Your task to perform on an android device: change keyboard looks Image 0: 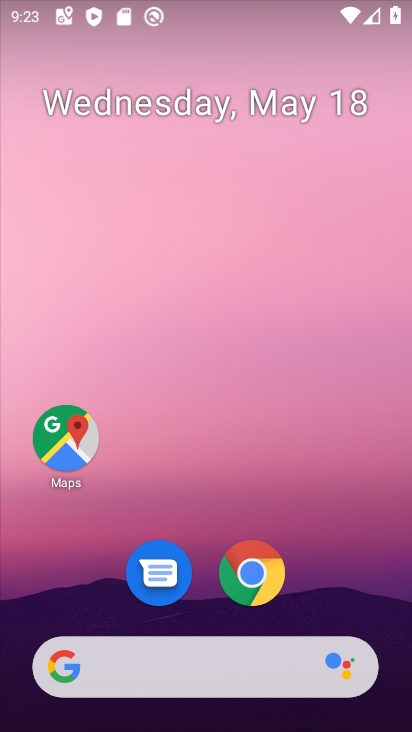
Step 0: drag from (236, 722) to (6, 81)
Your task to perform on an android device: change keyboard looks Image 1: 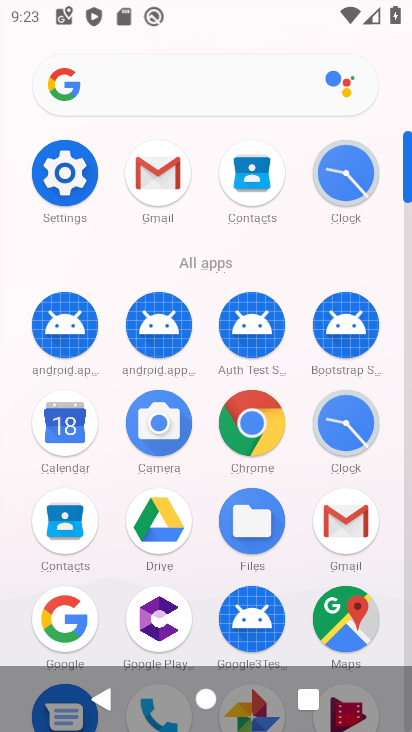
Step 1: click (63, 180)
Your task to perform on an android device: change keyboard looks Image 2: 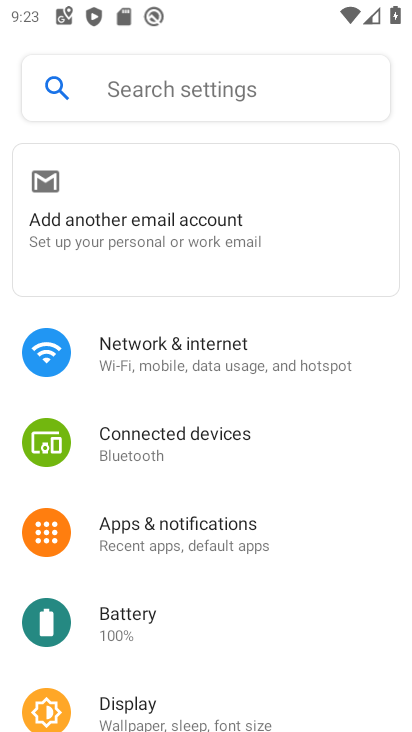
Step 2: drag from (198, 690) to (230, 184)
Your task to perform on an android device: change keyboard looks Image 3: 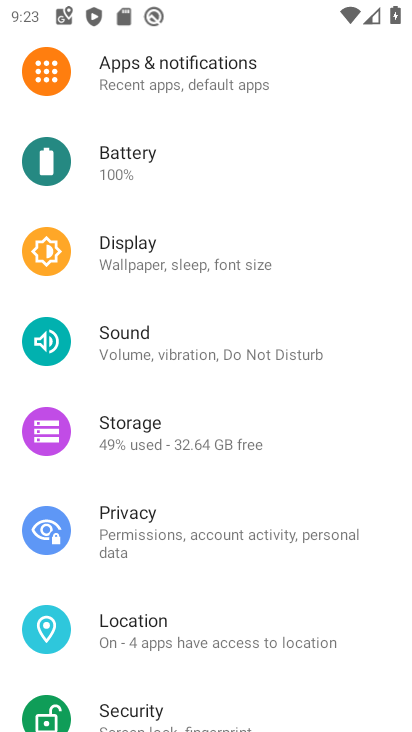
Step 3: drag from (323, 658) to (307, 179)
Your task to perform on an android device: change keyboard looks Image 4: 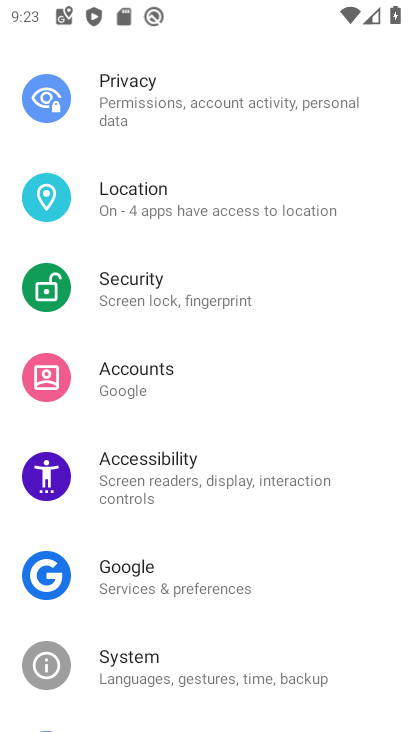
Step 4: click (90, 664)
Your task to perform on an android device: change keyboard looks Image 5: 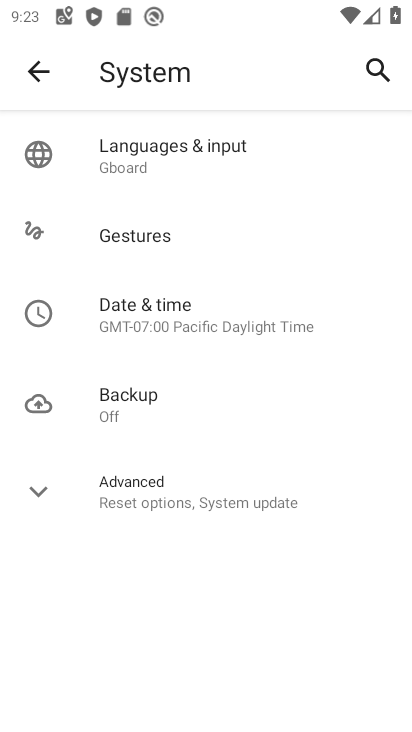
Step 5: click (145, 232)
Your task to perform on an android device: change keyboard looks Image 6: 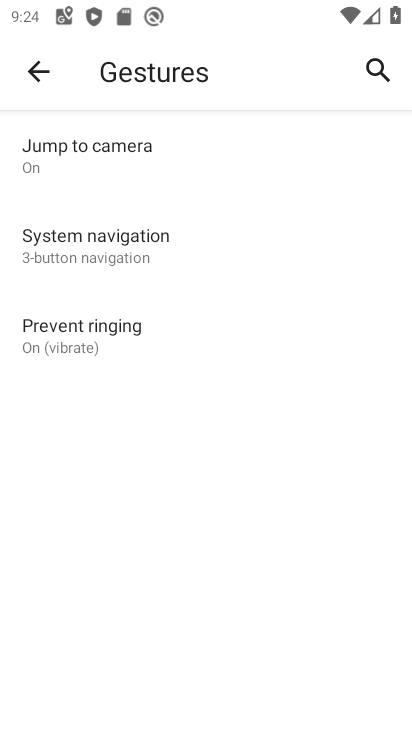
Step 6: click (42, 72)
Your task to perform on an android device: change keyboard looks Image 7: 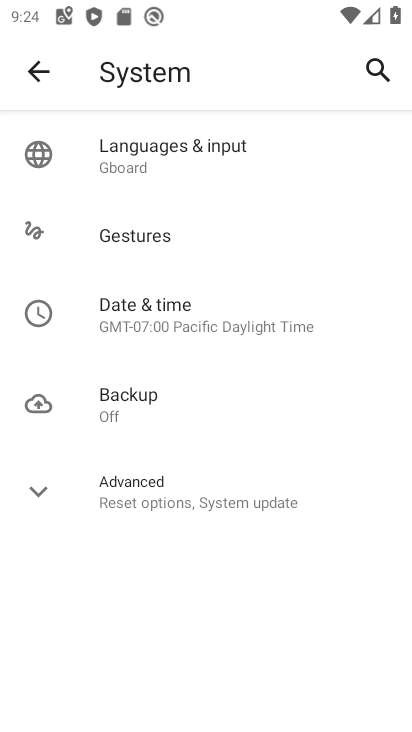
Step 7: click (204, 150)
Your task to perform on an android device: change keyboard looks Image 8: 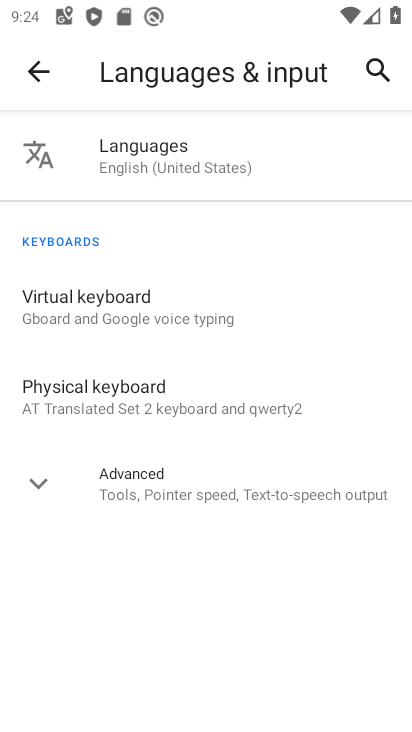
Step 8: click (104, 319)
Your task to perform on an android device: change keyboard looks Image 9: 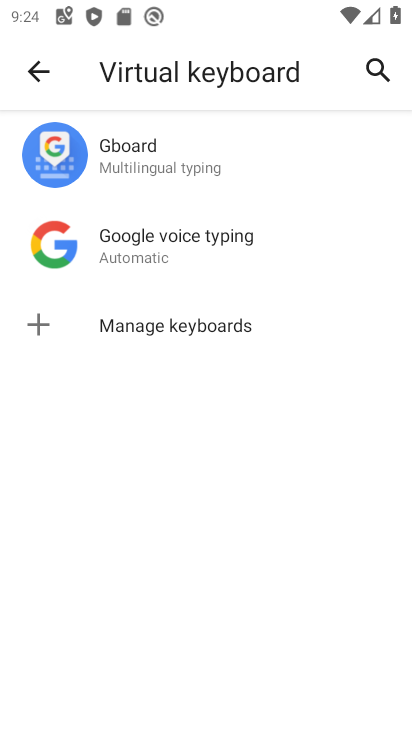
Step 9: click (105, 152)
Your task to perform on an android device: change keyboard looks Image 10: 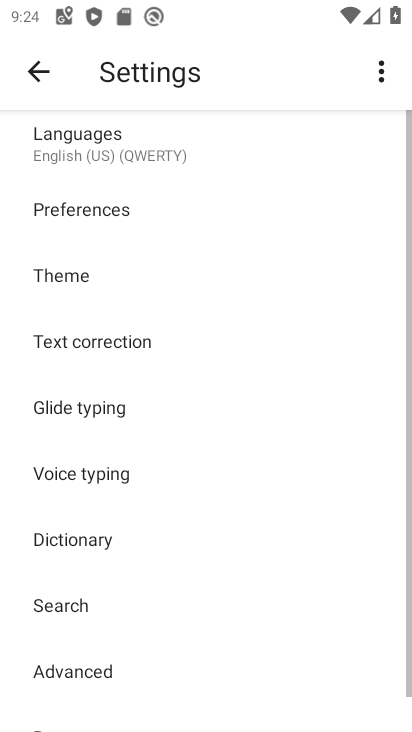
Step 10: click (76, 278)
Your task to perform on an android device: change keyboard looks Image 11: 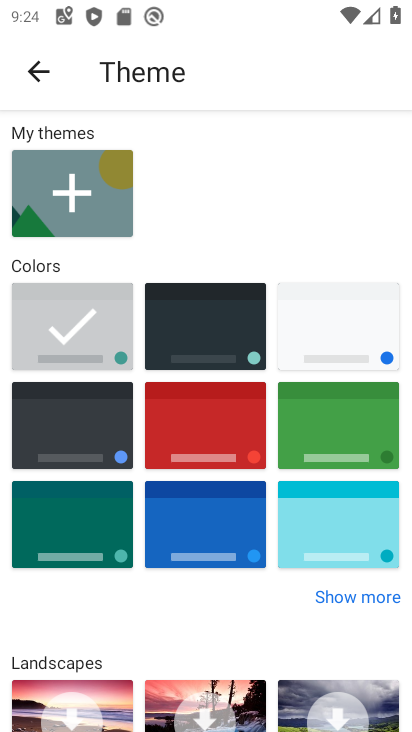
Step 11: click (218, 419)
Your task to perform on an android device: change keyboard looks Image 12: 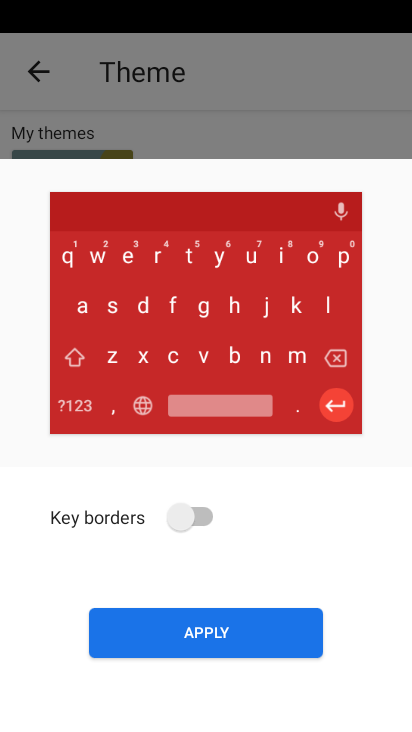
Step 12: click (174, 643)
Your task to perform on an android device: change keyboard looks Image 13: 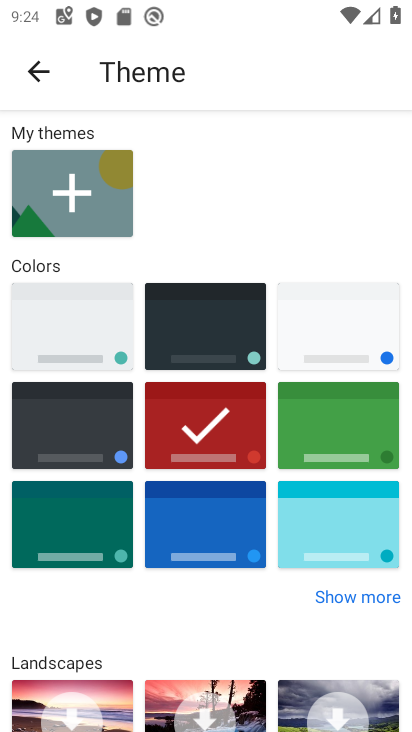
Step 13: task complete